Your task to perform on an android device: Open Yahoo.com Image 0: 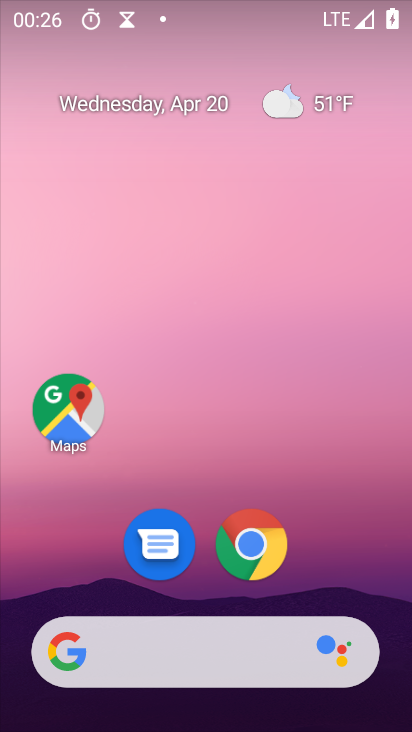
Step 0: click (254, 544)
Your task to perform on an android device: Open Yahoo.com Image 1: 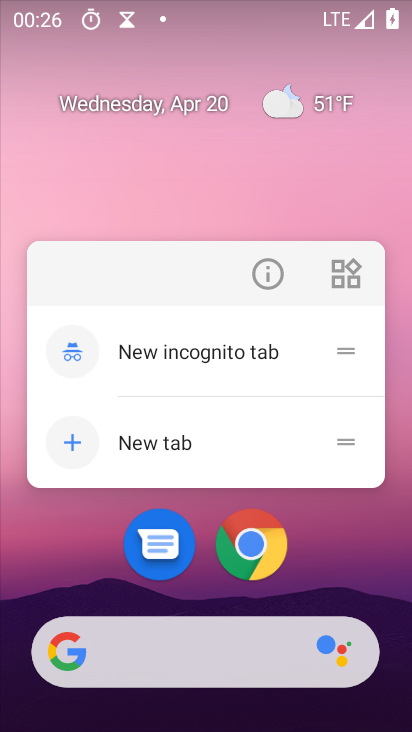
Step 1: click (254, 544)
Your task to perform on an android device: Open Yahoo.com Image 2: 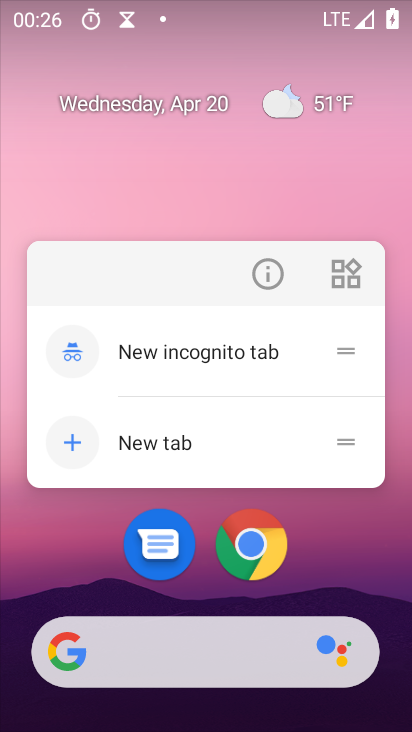
Step 2: click (254, 544)
Your task to perform on an android device: Open Yahoo.com Image 3: 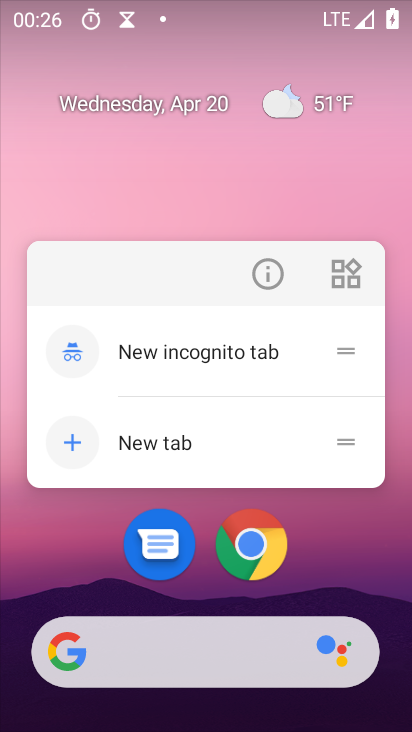
Step 3: click (254, 544)
Your task to perform on an android device: Open Yahoo.com Image 4: 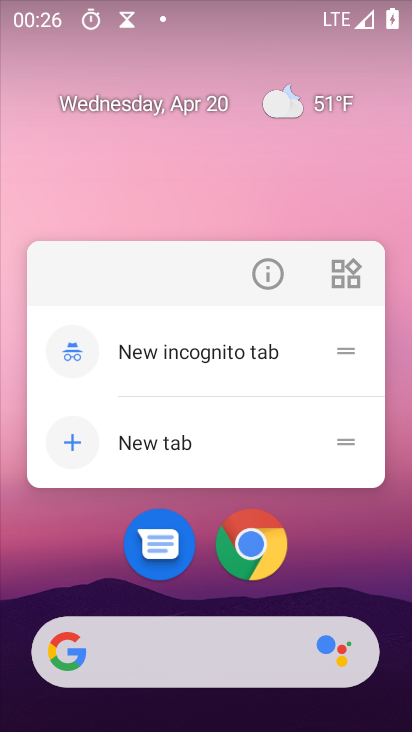
Step 4: click (254, 544)
Your task to perform on an android device: Open Yahoo.com Image 5: 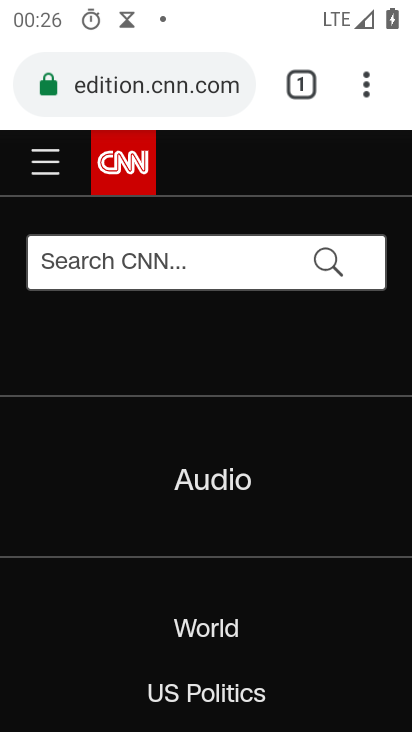
Step 5: click (115, 83)
Your task to perform on an android device: Open Yahoo.com Image 6: 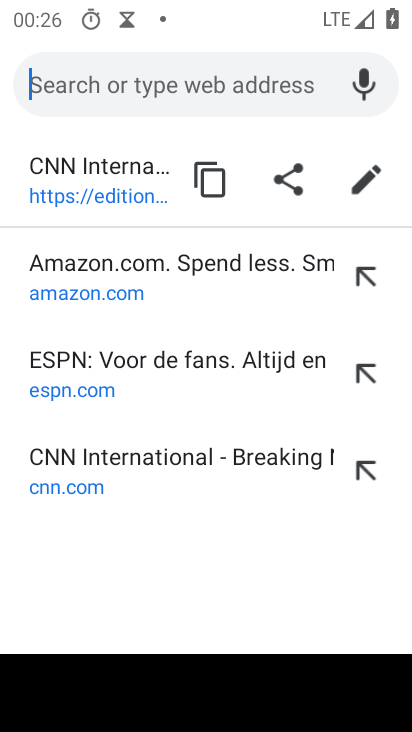
Step 6: type "yahoo.com"
Your task to perform on an android device: Open Yahoo.com Image 7: 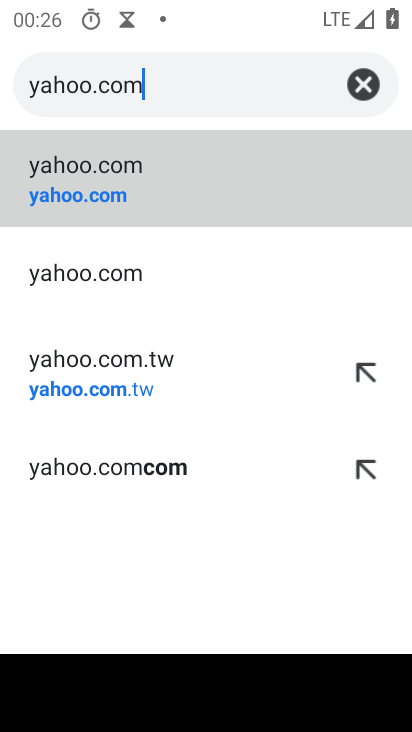
Step 7: click (47, 169)
Your task to perform on an android device: Open Yahoo.com Image 8: 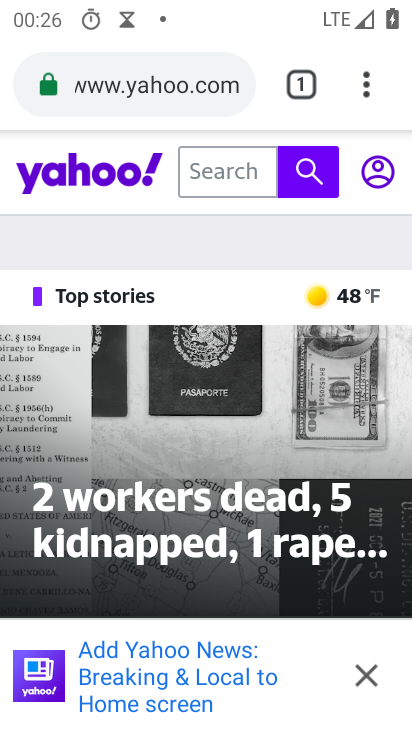
Step 8: task complete